Your task to perform on an android device: Go to Reddit.com Image 0: 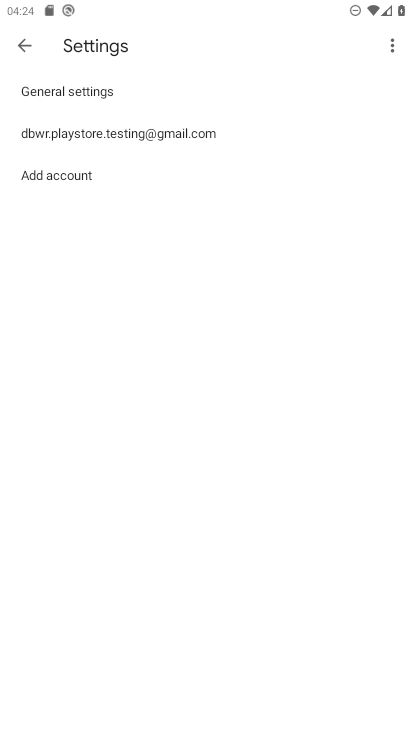
Step 0: press home button
Your task to perform on an android device: Go to Reddit.com Image 1: 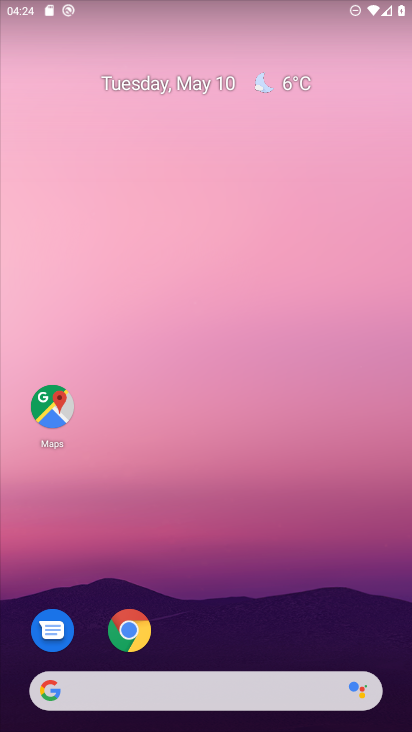
Step 1: click (126, 627)
Your task to perform on an android device: Go to Reddit.com Image 2: 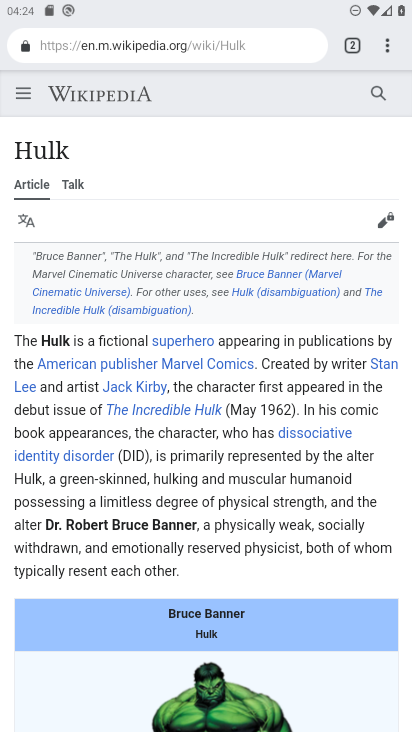
Step 2: click (216, 38)
Your task to perform on an android device: Go to Reddit.com Image 3: 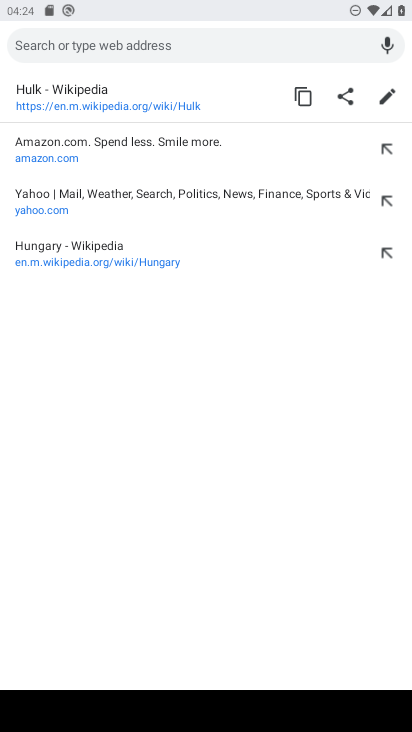
Step 3: type "reddit.com"
Your task to perform on an android device: Go to Reddit.com Image 4: 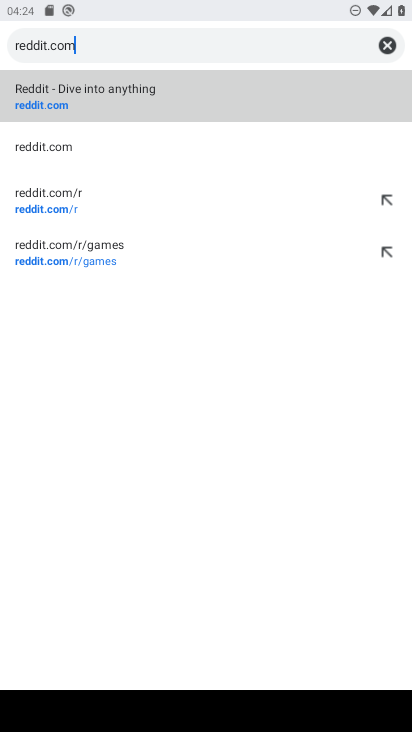
Step 4: click (275, 112)
Your task to perform on an android device: Go to Reddit.com Image 5: 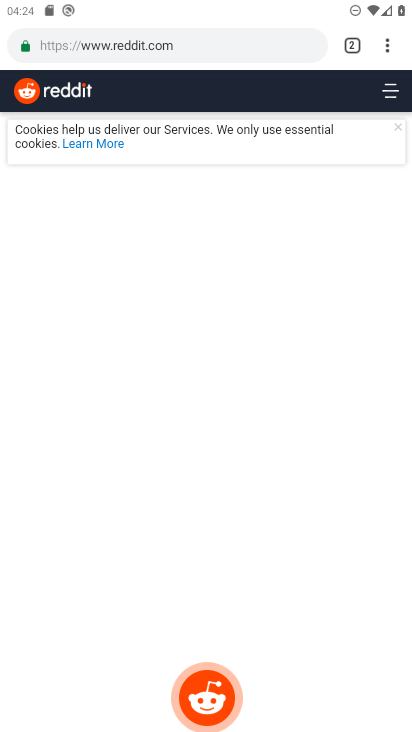
Step 5: task complete